Your task to perform on an android device: Check the news Image 0: 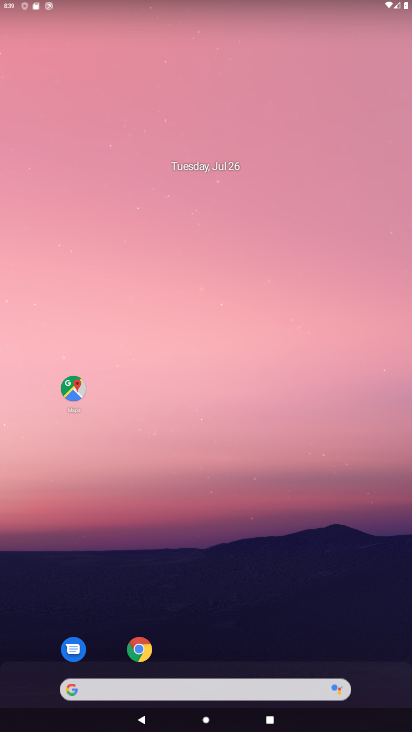
Step 0: drag from (202, 356) to (189, 93)
Your task to perform on an android device: Check the news Image 1: 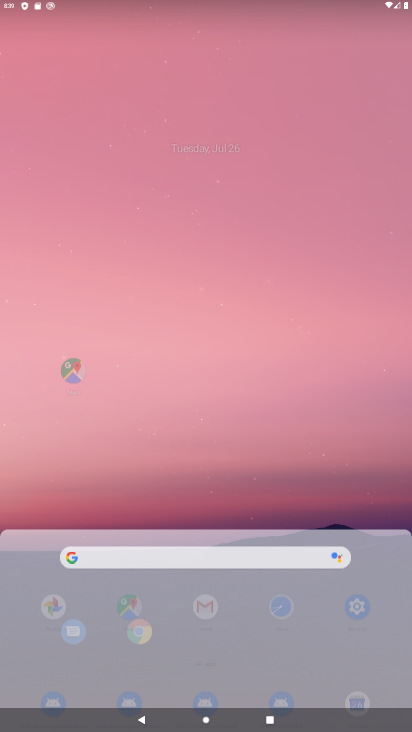
Step 1: drag from (198, 511) to (168, 58)
Your task to perform on an android device: Check the news Image 2: 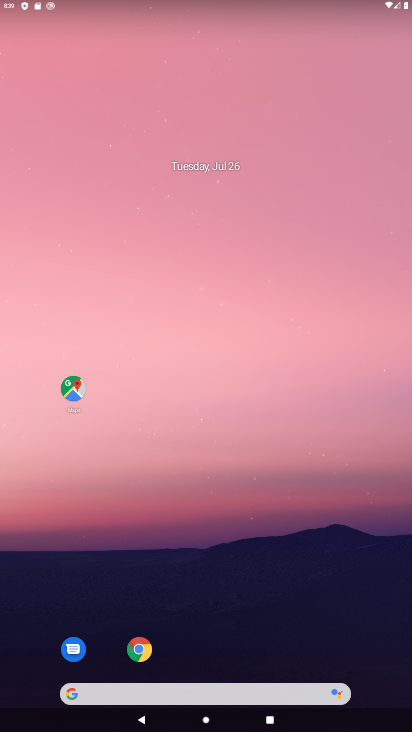
Step 2: drag from (211, 302) to (172, 82)
Your task to perform on an android device: Check the news Image 3: 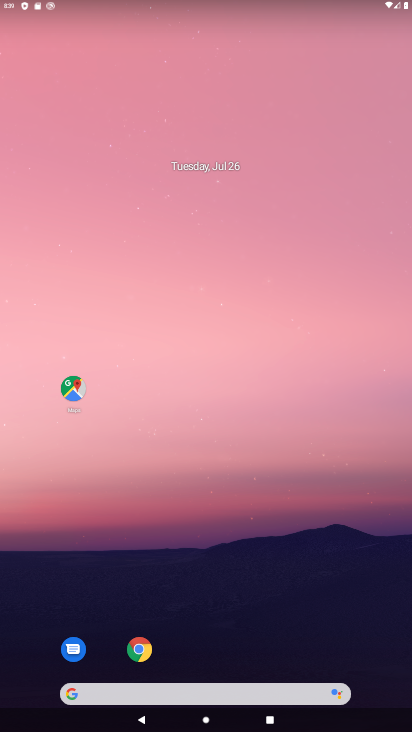
Step 3: drag from (209, 598) to (229, 199)
Your task to perform on an android device: Check the news Image 4: 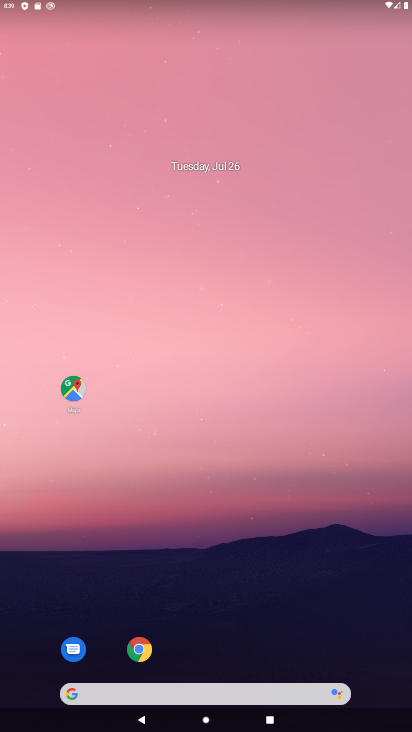
Step 4: drag from (201, 628) to (121, 73)
Your task to perform on an android device: Check the news Image 5: 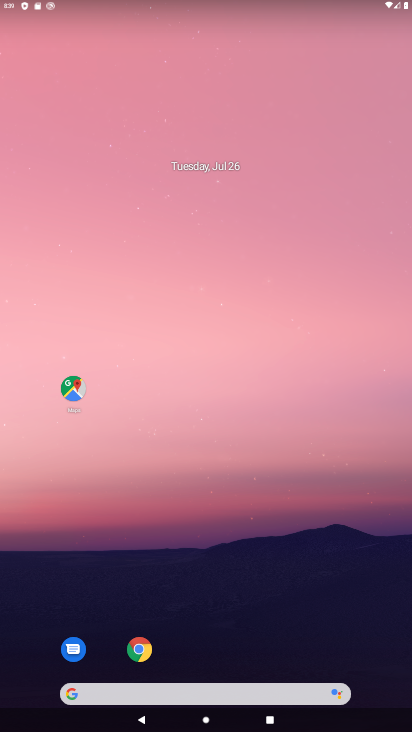
Step 5: drag from (220, 639) to (210, 195)
Your task to perform on an android device: Check the news Image 6: 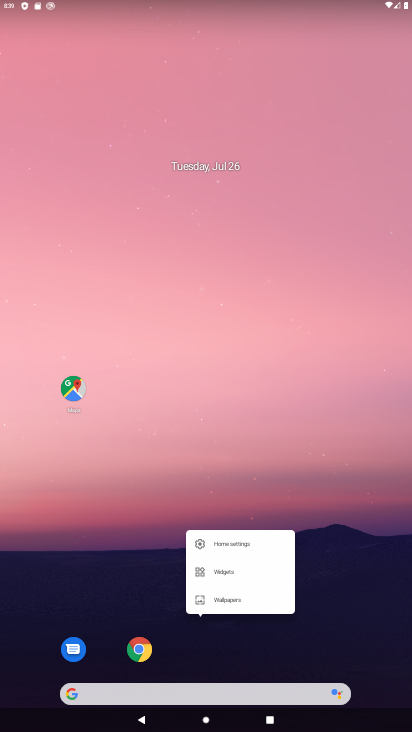
Step 6: drag from (235, 570) to (152, 51)
Your task to perform on an android device: Check the news Image 7: 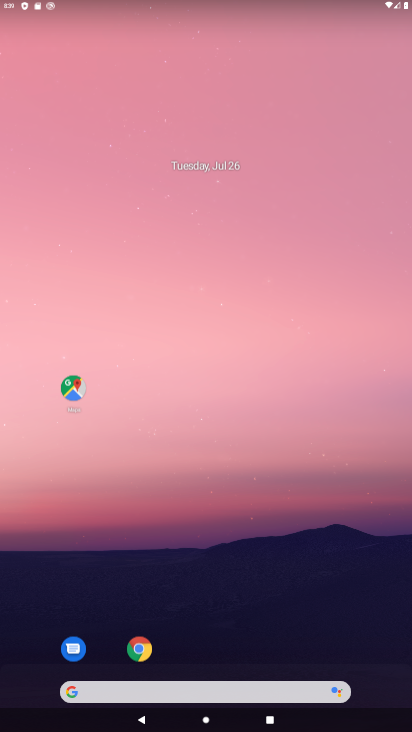
Step 7: drag from (198, 551) to (206, 187)
Your task to perform on an android device: Check the news Image 8: 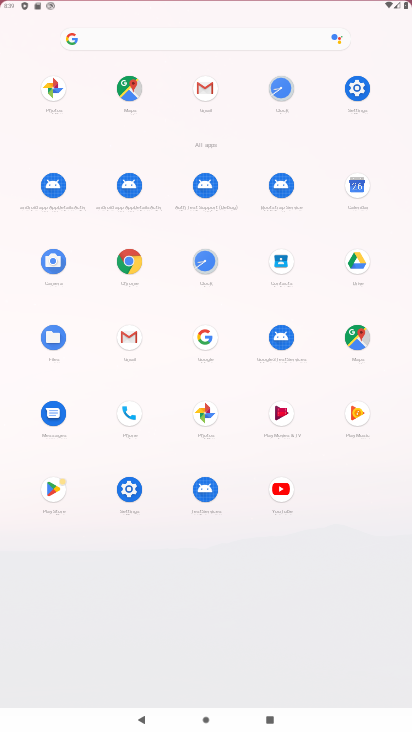
Step 8: drag from (255, 526) to (235, 47)
Your task to perform on an android device: Check the news Image 9: 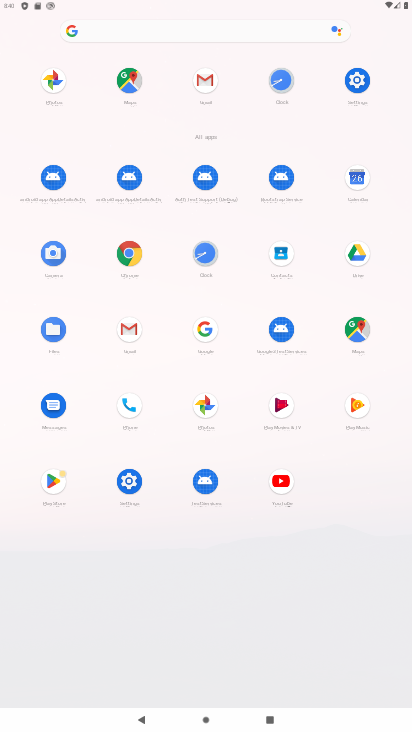
Step 9: click (118, 253)
Your task to perform on an android device: Check the news Image 10: 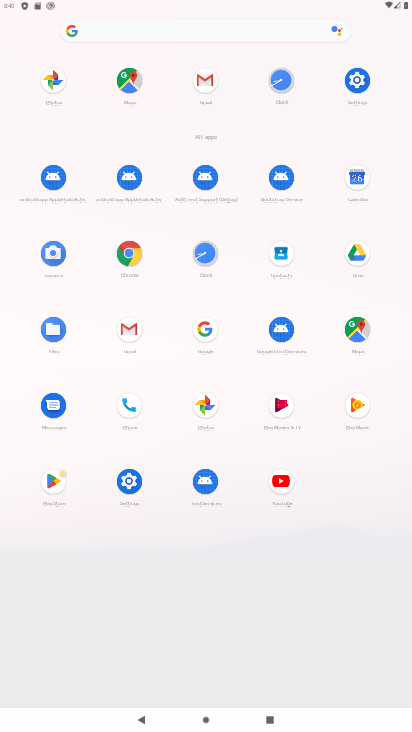
Step 10: click (127, 262)
Your task to perform on an android device: Check the news Image 11: 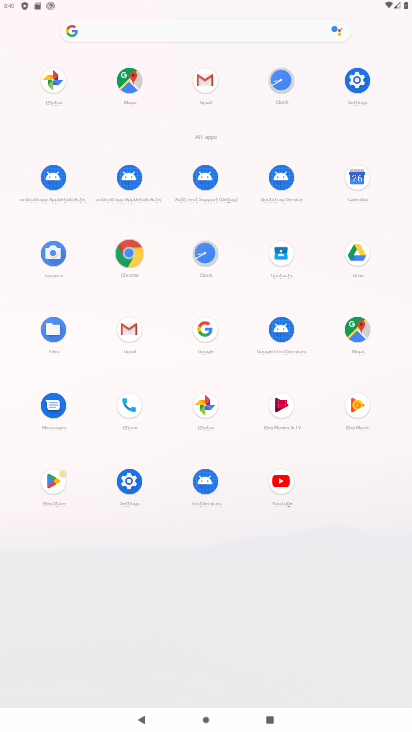
Step 11: click (129, 260)
Your task to perform on an android device: Check the news Image 12: 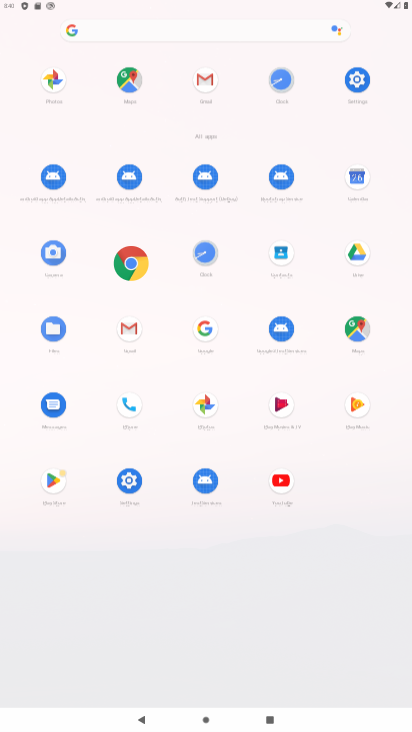
Step 12: click (135, 257)
Your task to perform on an android device: Check the news Image 13: 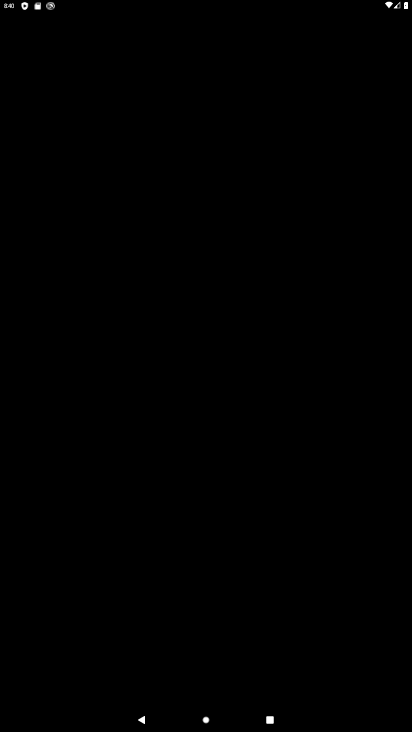
Step 13: click (130, 255)
Your task to perform on an android device: Check the news Image 14: 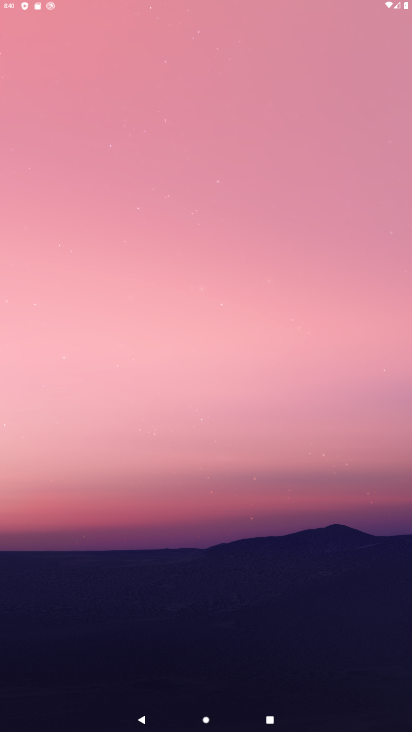
Step 14: click (130, 255)
Your task to perform on an android device: Check the news Image 15: 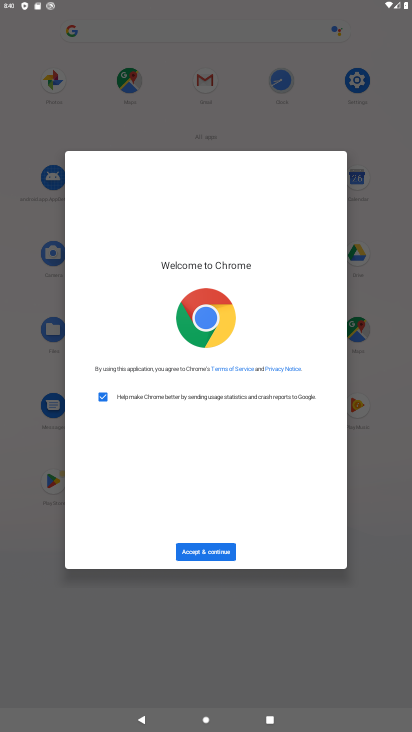
Step 15: click (190, 557)
Your task to perform on an android device: Check the news Image 16: 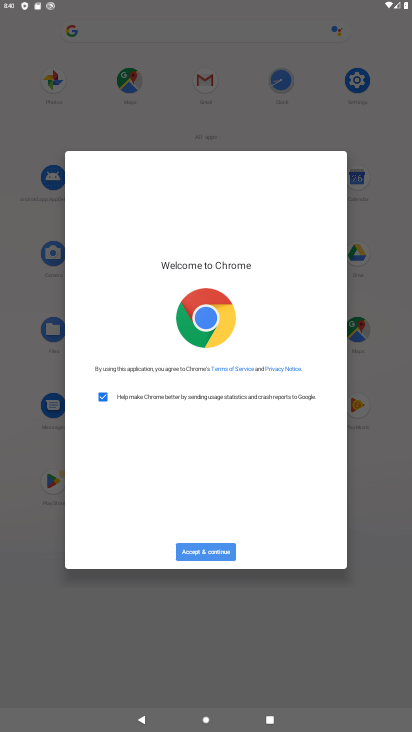
Step 16: click (196, 550)
Your task to perform on an android device: Check the news Image 17: 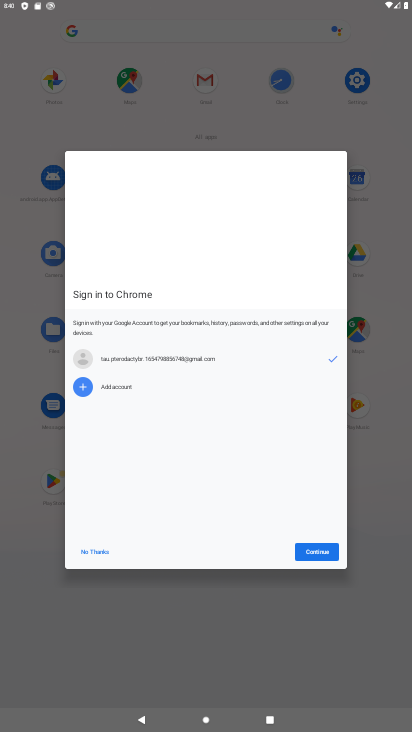
Step 17: click (197, 548)
Your task to perform on an android device: Check the news Image 18: 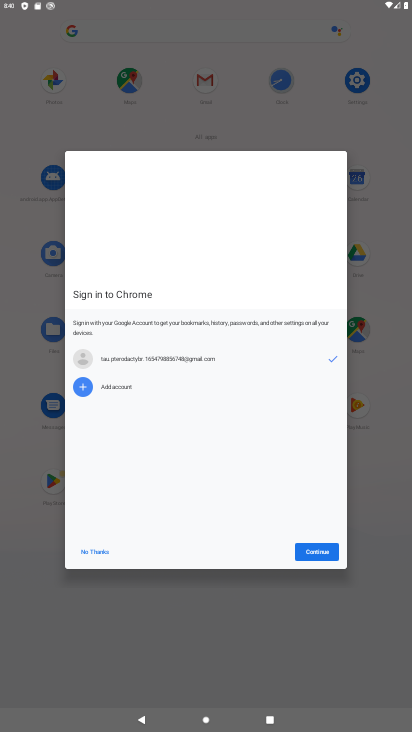
Step 18: click (197, 548)
Your task to perform on an android device: Check the news Image 19: 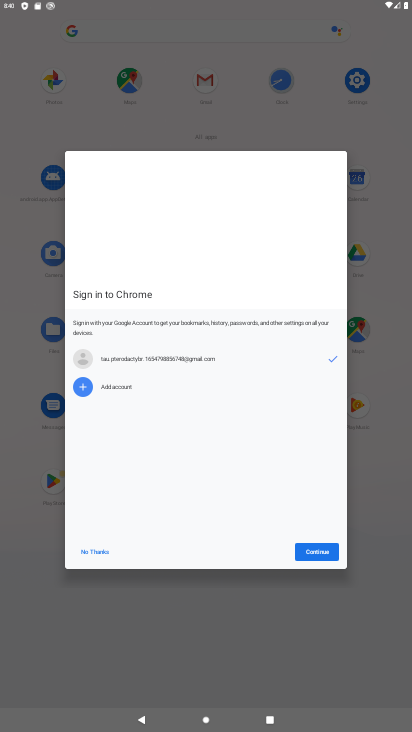
Step 19: click (91, 548)
Your task to perform on an android device: Check the news Image 20: 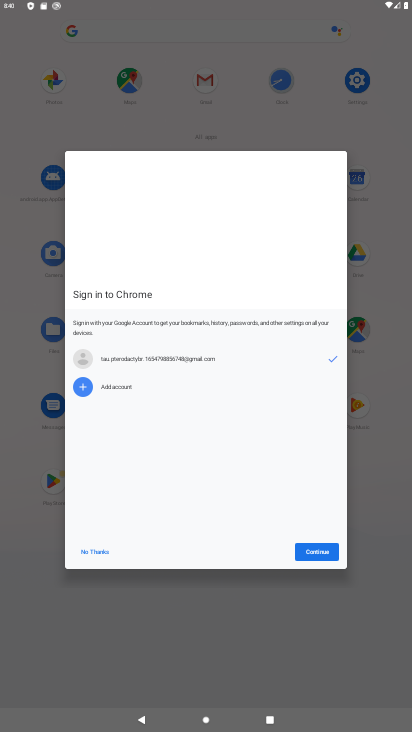
Step 20: click (95, 544)
Your task to perform on an android device: Check the news Image 21: 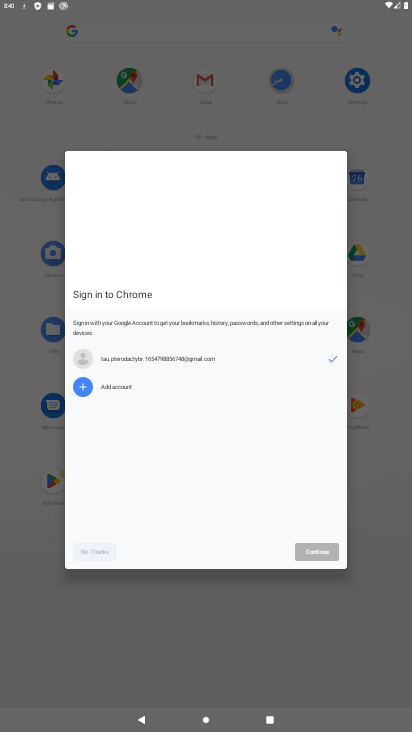
Step 21: click (95, 544)
Your task to perform on an android device: Check the news Image 22: 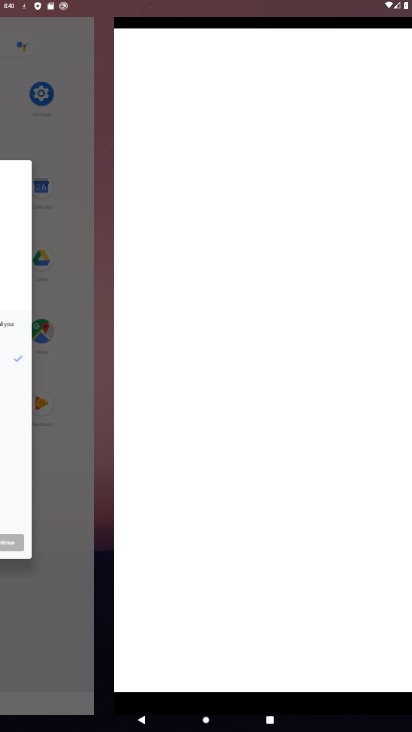
Step 22: click (94, 542)
Your task to perform on an android device: Check the news Image 23: 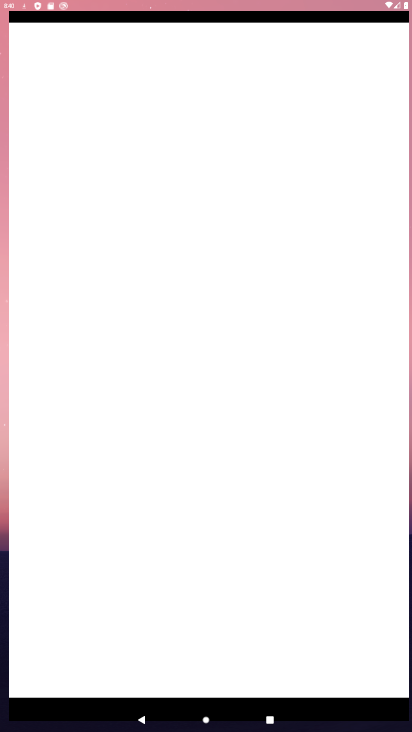
Step 23: click (94, 542)
Your task to perform on an android device: Check the news Image 24: 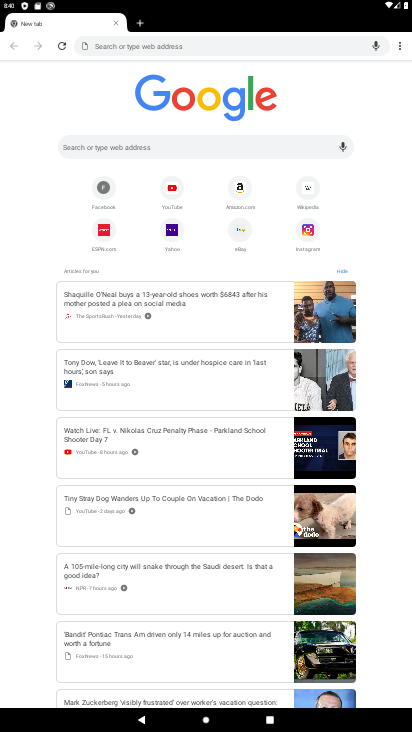
Step 24: task complete